Your task to perform on an android device: What's the weather today? Image 0: 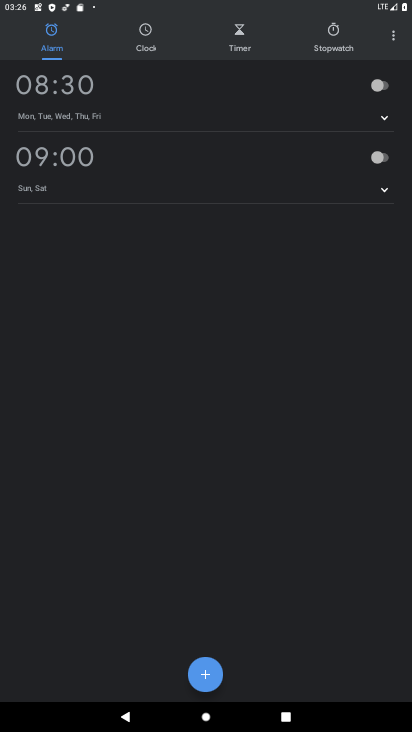
Step 0: press home button
Your task to perform on an android device: What's the weather today? Image 1: 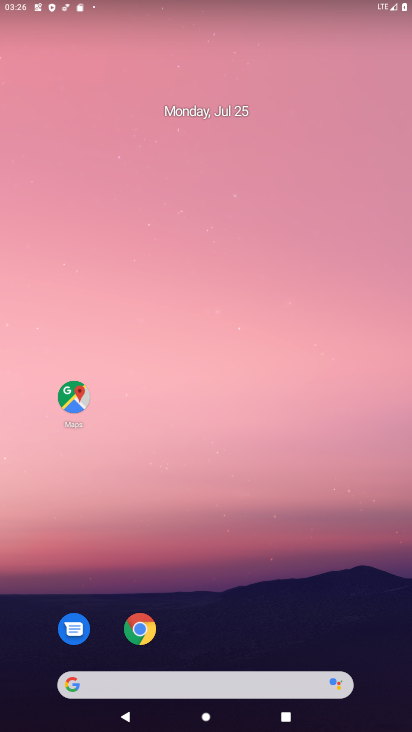
Step 1: click (110, 681)
Your task to perform on an android device: What's the weather today? Image 2: 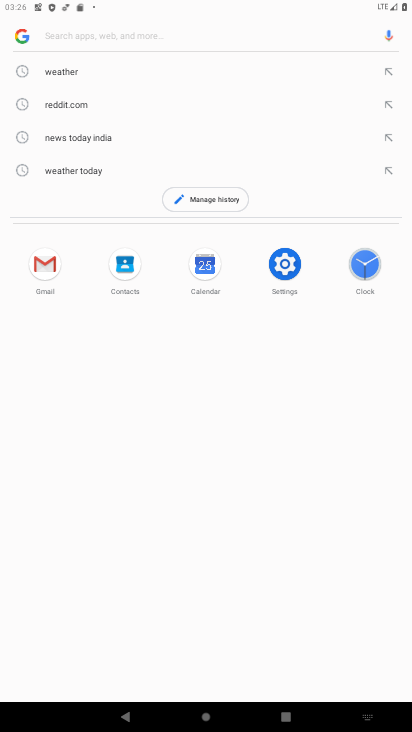
Step 2: click (70, 84)
Your task to perform on an android device: What's the weather today? Image 3: 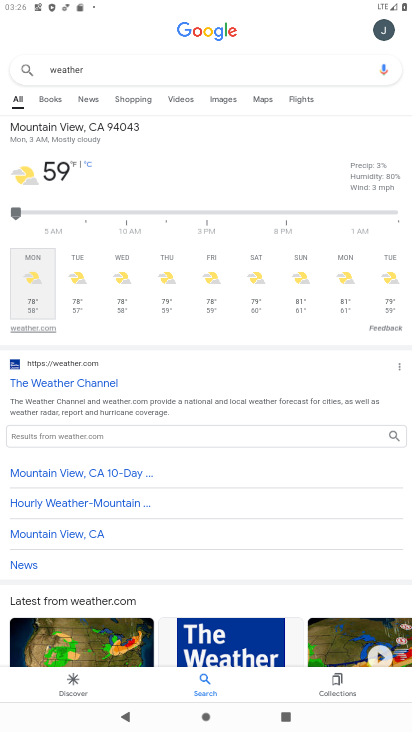
Step 3: task complete